Your task to perform on an android device: What is the news today? Image 0: 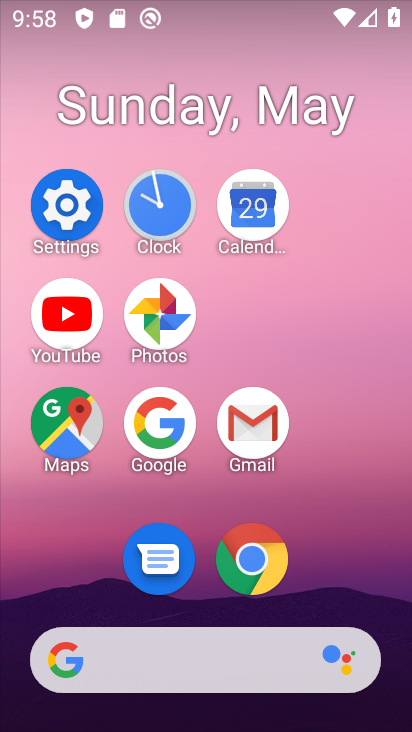
Step 0: click (173, 410)
Your task to perform on an android device: What is the news today? Image 1: 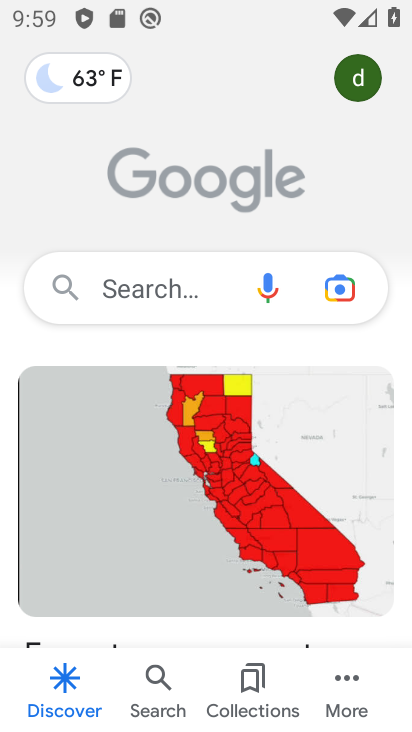
Step 1: click (213, 302)
Your task to perform on an android device: What is the news today? Image 2: 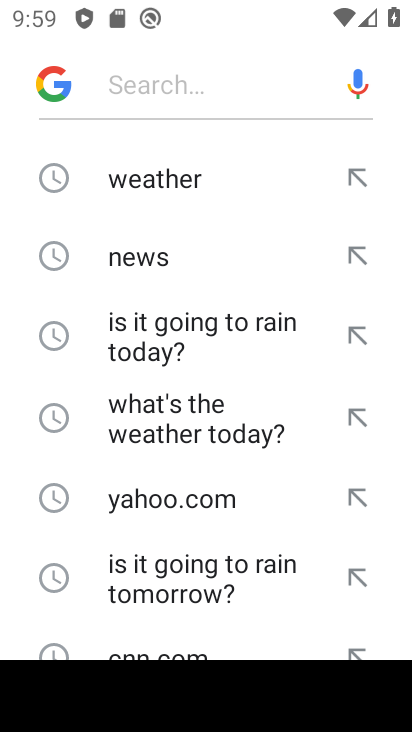
Step 2: drag from (163, 542) to (173, 204)
Your task to perform on an android device: What is the news today? Image 3: 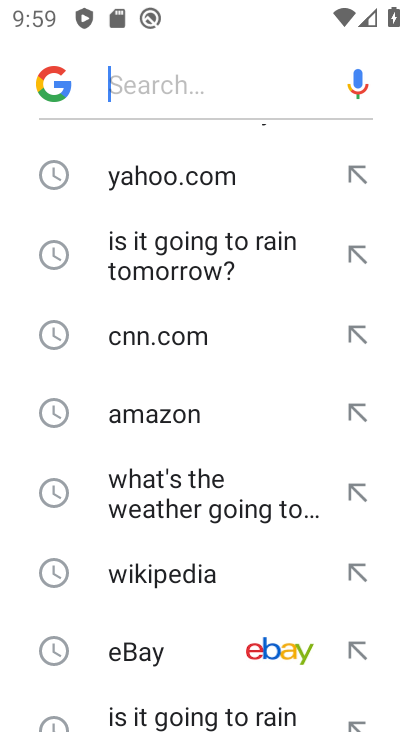
Step 3: drag from (162, 563) to (167, 208)
Your task to perform on an android device: What is the news today? Image 4: 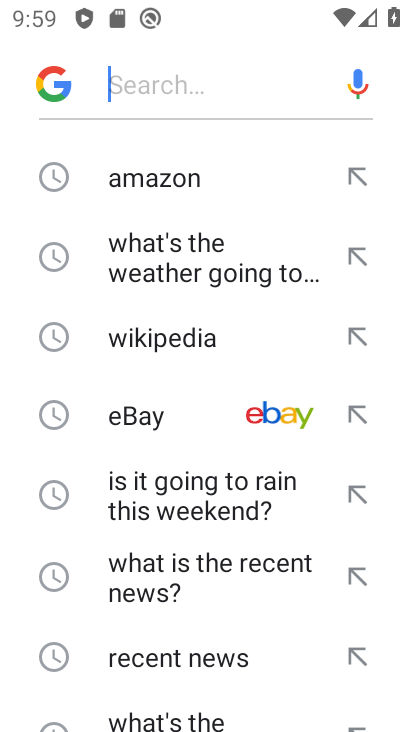
Step 4: drag from (199, 650) to (212, 232)
Your task to perform on an android device: What is the news today? Image 5: 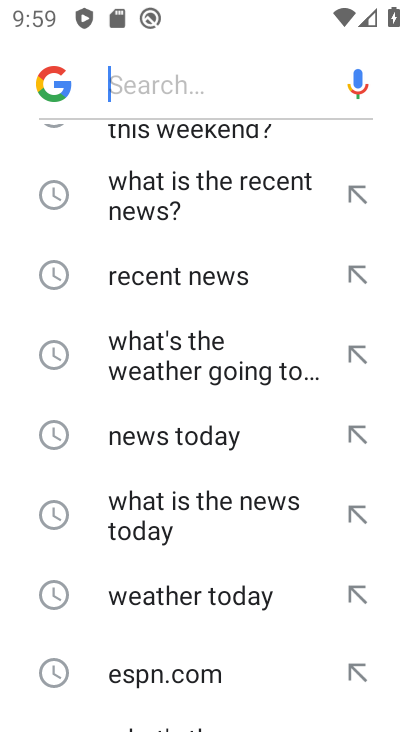
Step 5: drag from (172, 615) to (190, 298)
Your task to perform on an android device: What is the news today? Image 6: 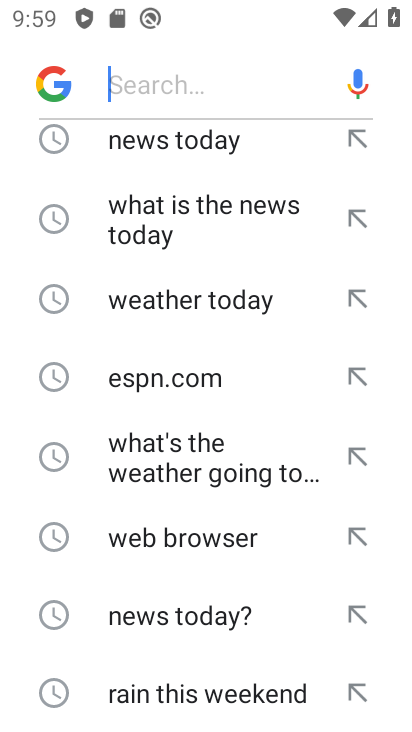
Step 6: click (149, 136)
Your task to perform on an android device: What is the news today? Image 7: 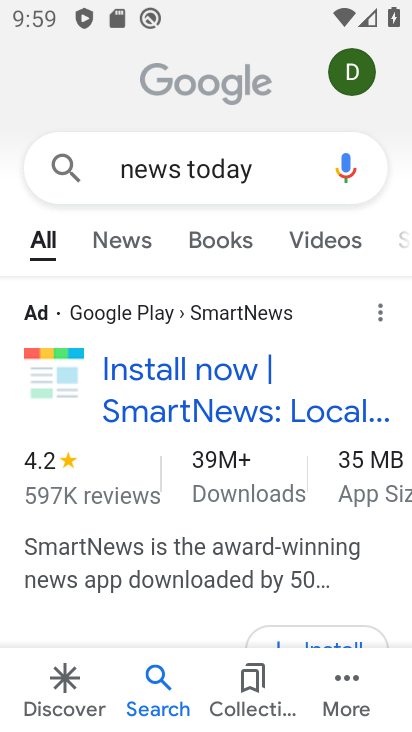
Step 7: task complete